Your task to perform on an android device: Open my contact list Image 0: 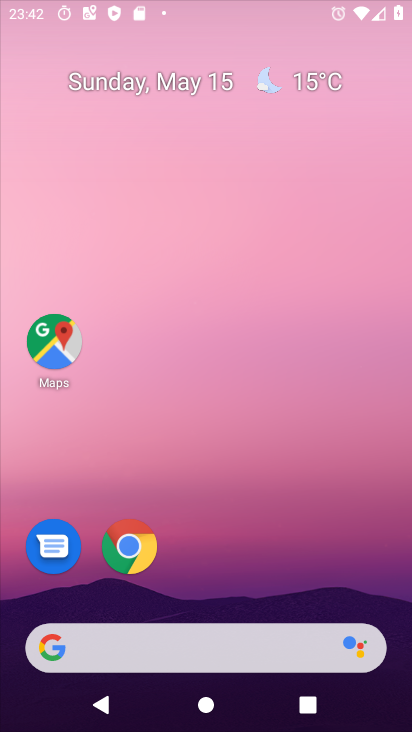
Step 0: drag from (394, 666) to (283, 207)
Your task to perform on an android device: Open my contact list Image 1: 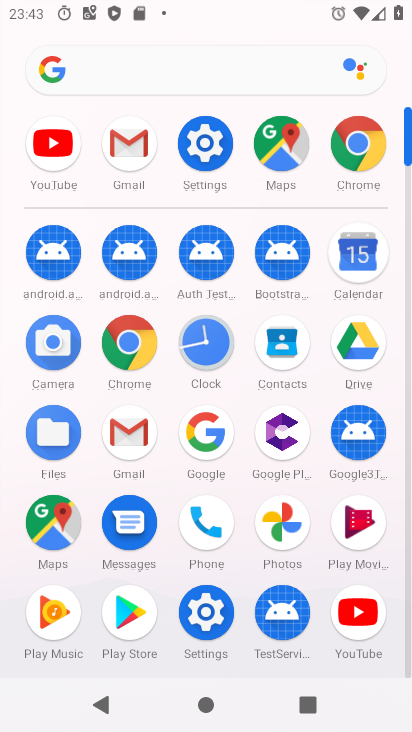
Step 1: click (203, 612)
Your task to perform on an android device: Open my contact list Image 2: 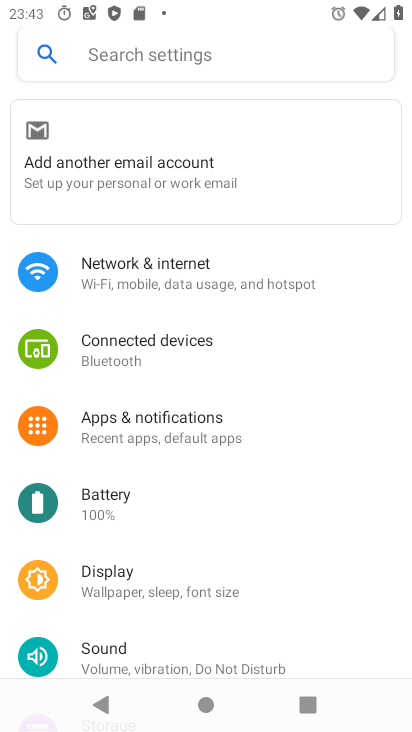
Step 2: drag from (212, 578) to (205, 214)
Your task to perform on an android device: Open my contact list Image 3: 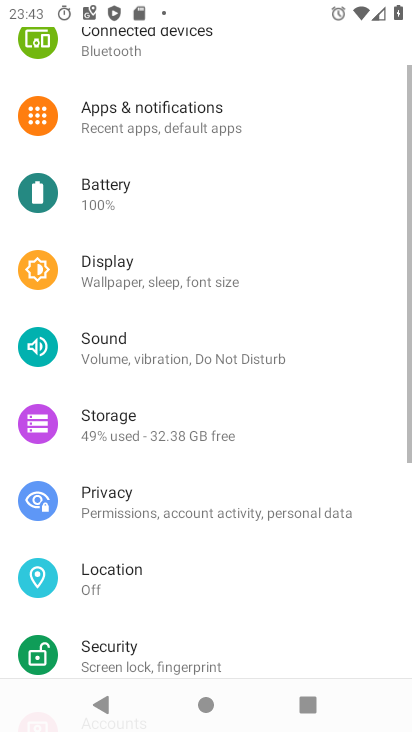
Step 3: drag from (228, 365) to (216, 127)
Your task to perform on an android device: Open my contact list Image 4: 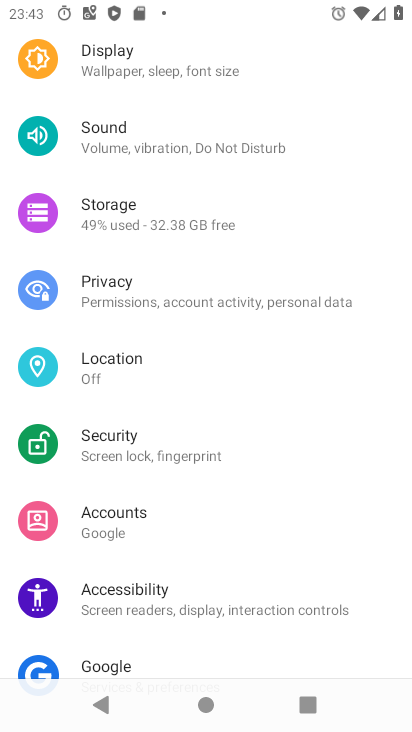
Step 4: drag from (169, 384) to (158, 79)
Your task to perform on an android device: Open my contact list Image 5: 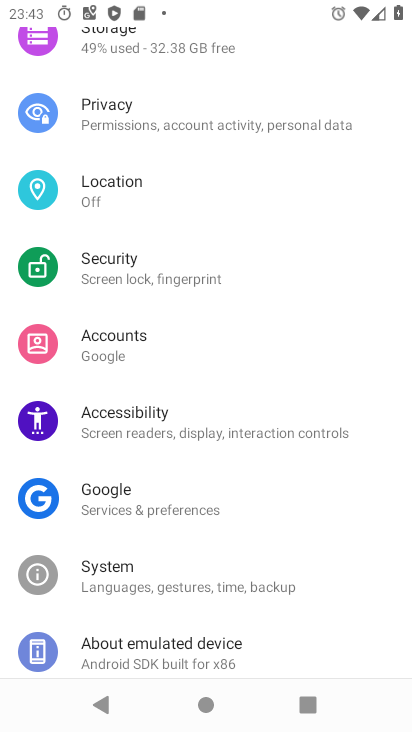
Step 5: drag from (174, 554) to (165, 112)
Your task to perform on an android device: Open my contact list Image 6: 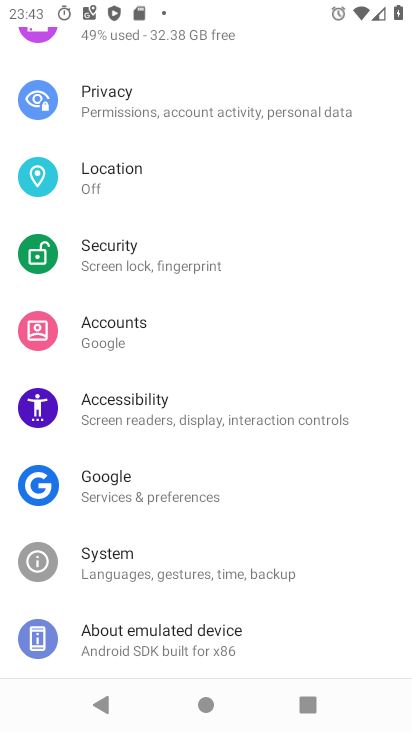
Step 6: drag from (197, 539) to (175, 157)
Your task to perform on an android device: Open my contact list Image 7: 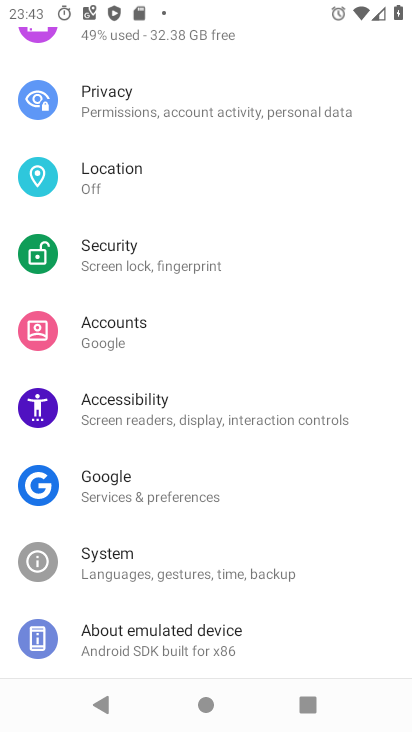
Step 7: drag from (100, 499) to (103, 57)
Your task to perform on an android device: Open my contact list Image 8: 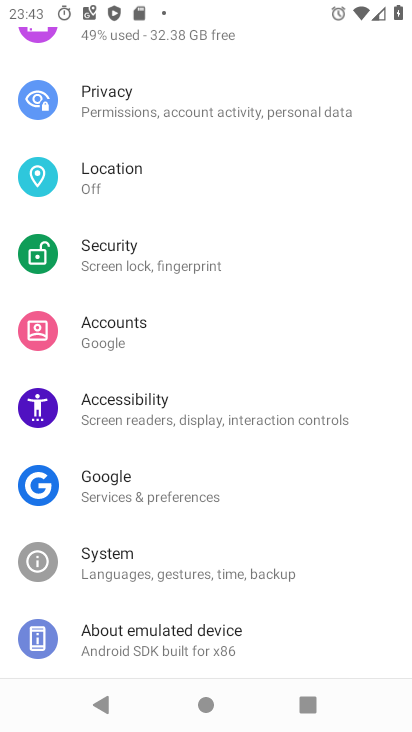
Step 8: drag from (246, 399) to (149, 127)
Your task to perform on an android device: Open my contact list Image 9: 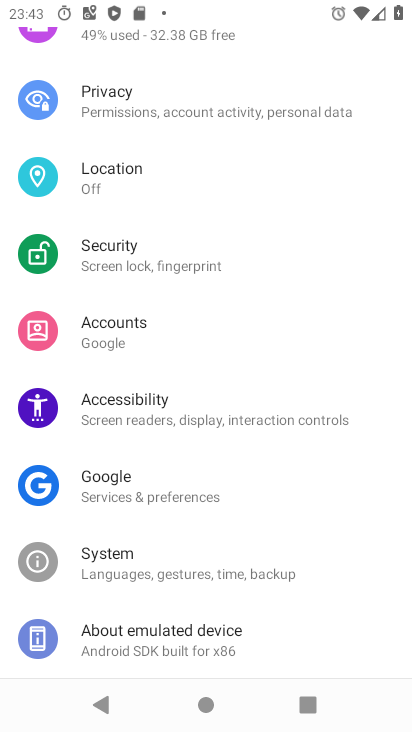
Step 9: drag from (188, 428) to (187, 175)
Your task to perform on an android device: Open my contact list Image 10: 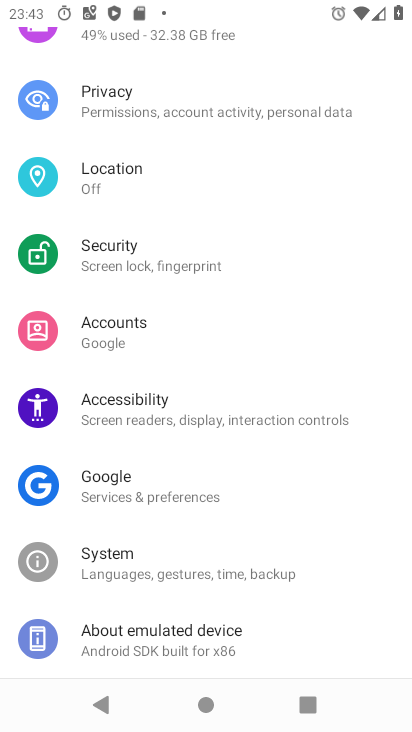
Step 10: drag from (224, 426) to (153, 138)
Your task to perform on an android device: Open my contact list Image 11: 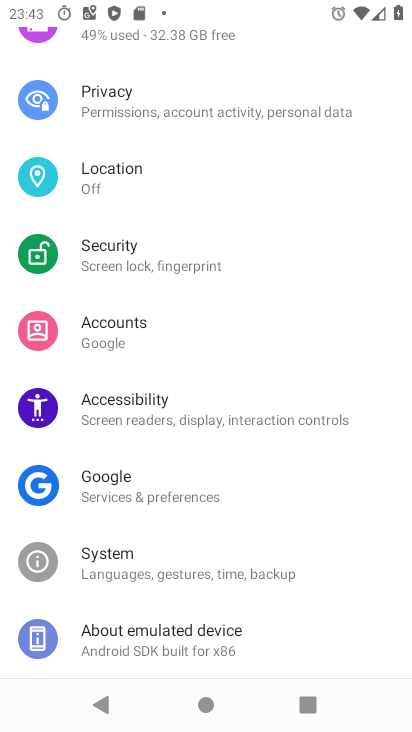
Step 11: drag from (181, 418) to (223, 9)
Your task to perform on an android device: Open my contact list Image 12: 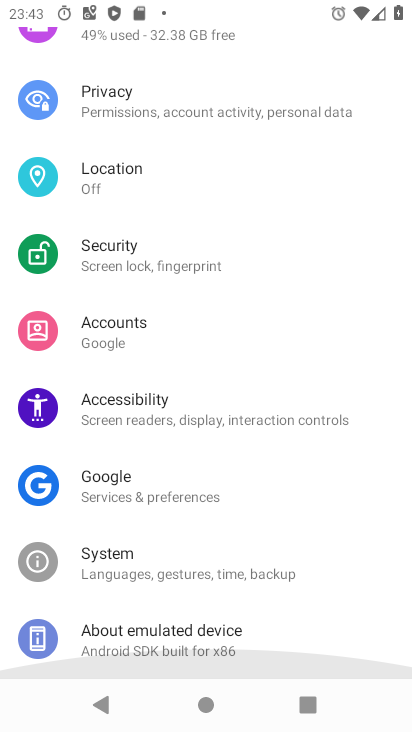
Step 12: drag from (188, 296) to (175, 27)
Your task to perform on an android device: Open my contact list Image 13: 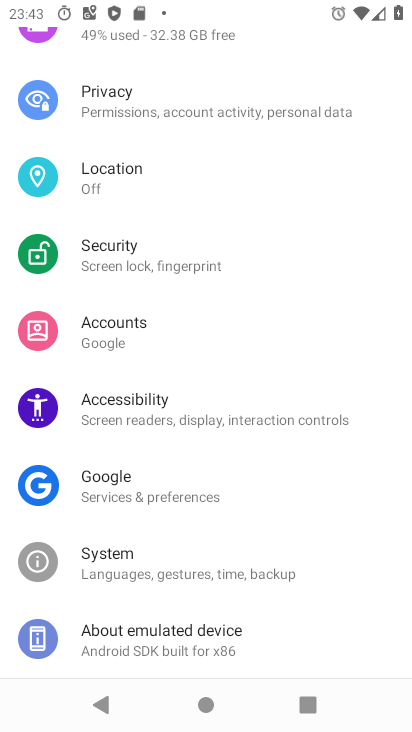
Step 13: drag from (165, 138) to (207, 559)
Your task to perform on an android device: Open my contact list Image 14: 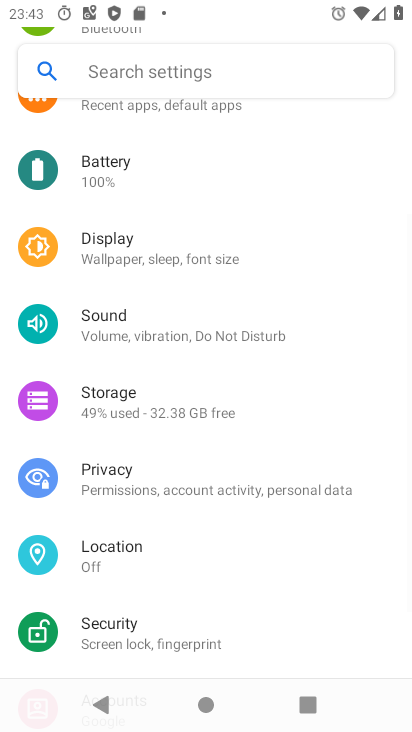
Step 14: drag from (165, 158) to (235, 582)
Your task to perform on an android device: Open my contact list Image 15: 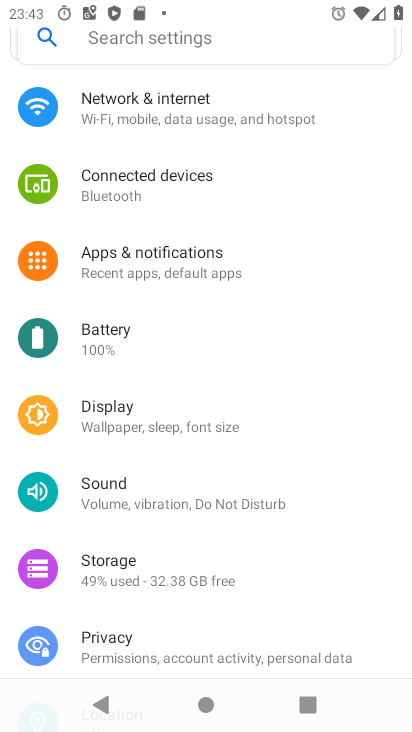
Step 15: drag from (136, 301) to (173, 720)
Your task to perform on an android device: Open my contact list Image 16: 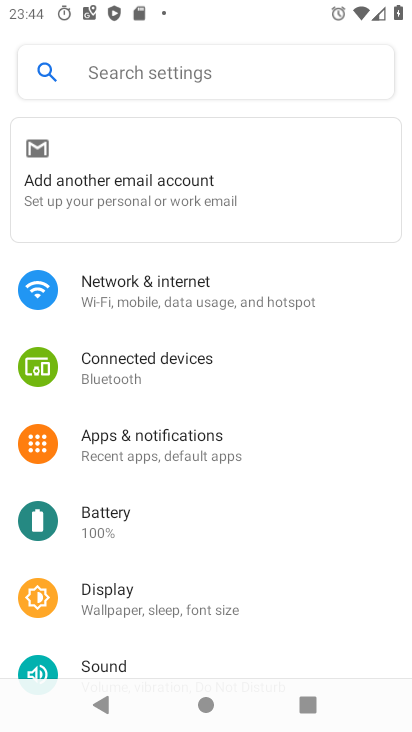
Step 16: click (170, 298)
Your task to perform on an android device: Open my contact list Image 17: 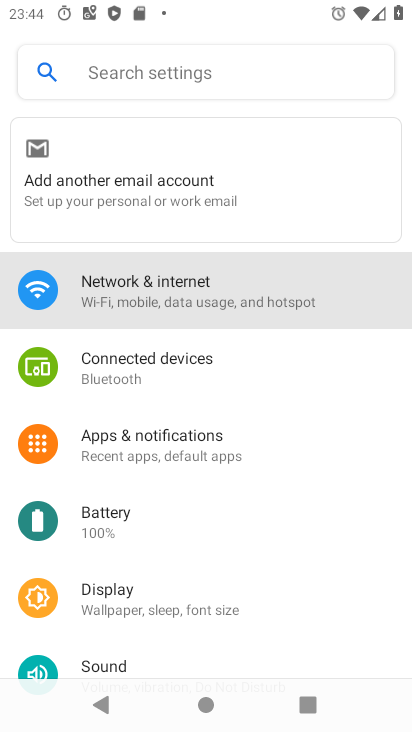
Step 17: click (174, 295)
Your task to perform on an android device: Open my contact list Image 18: 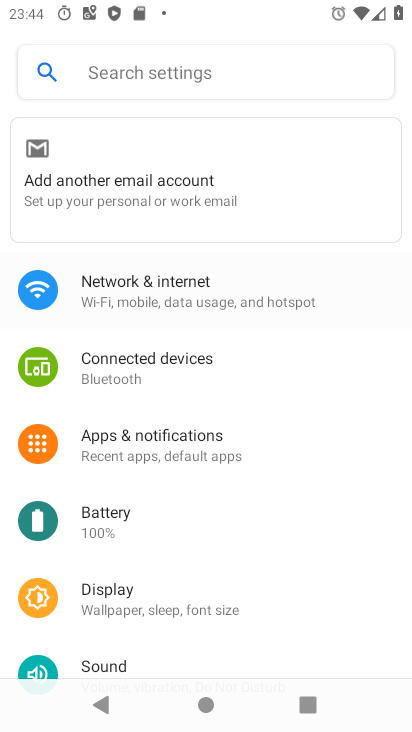
Step 18: click (176, 294)
Your task to perform on an android device: Open my contact list Image 19: 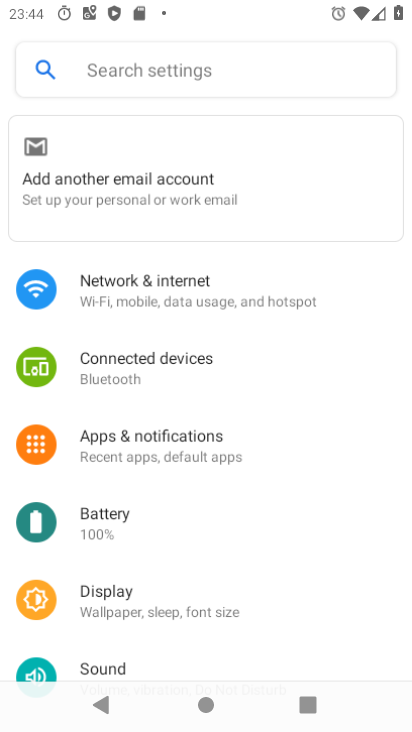
Step 19: click (181, 298)
Your task to perform on an android device: Open my contact list Image 20: 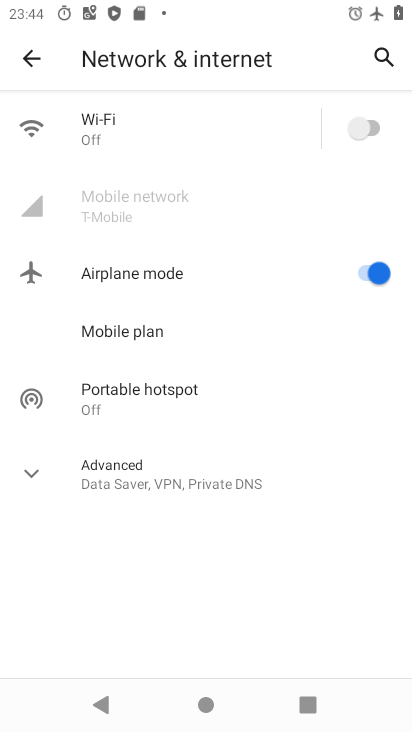
Step 20: click (360, 119)
Your task to perform on an android device: Open my contact list Image 21: 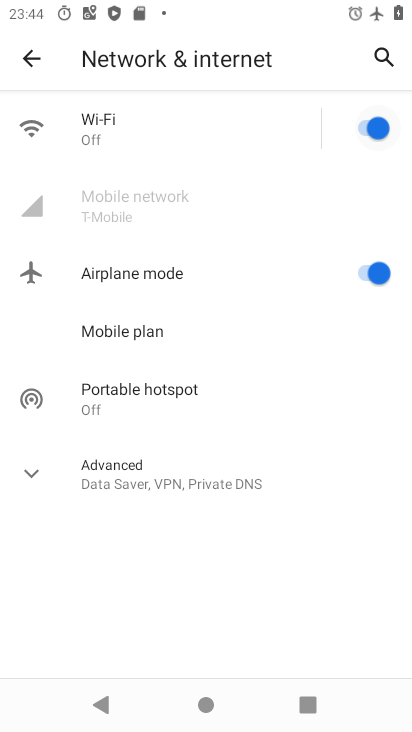
Step 21: click (356, 134)
Your task to perform on an android device: Open my contact list Image 22: 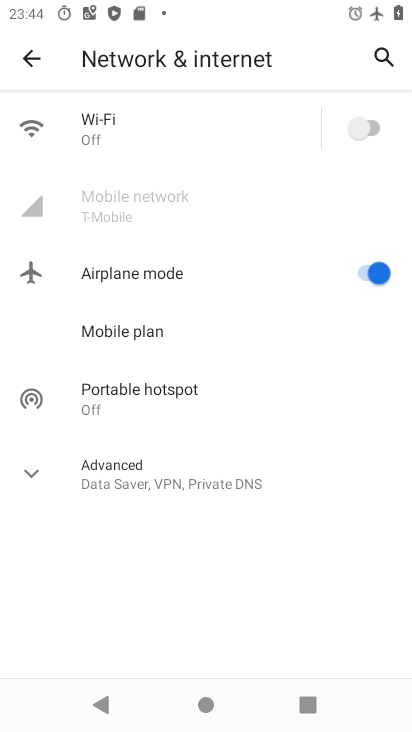
Step 22: click (34, 55)
Your task to perform on an android device: Open my contact list Image 23: 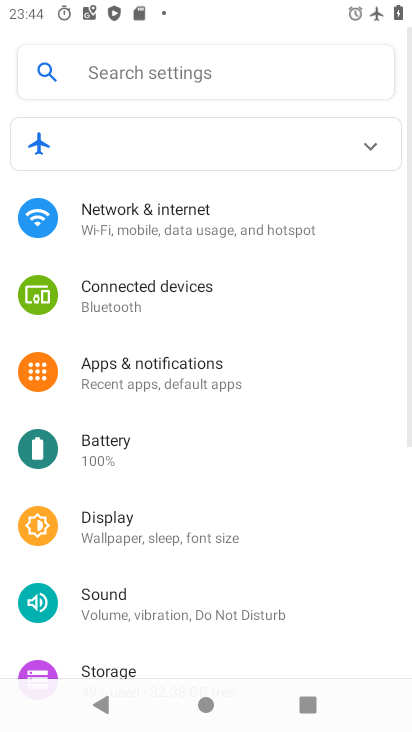
Step 23: click (182, 213)
Your task to perform on an android device: Open my contact list Image 24: 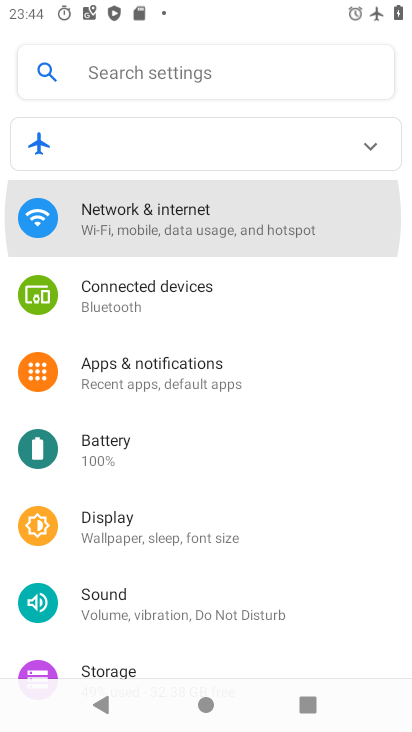
Step 24: click (183, 216)
Your task to perform on an android device: Open my contact list Image 25: 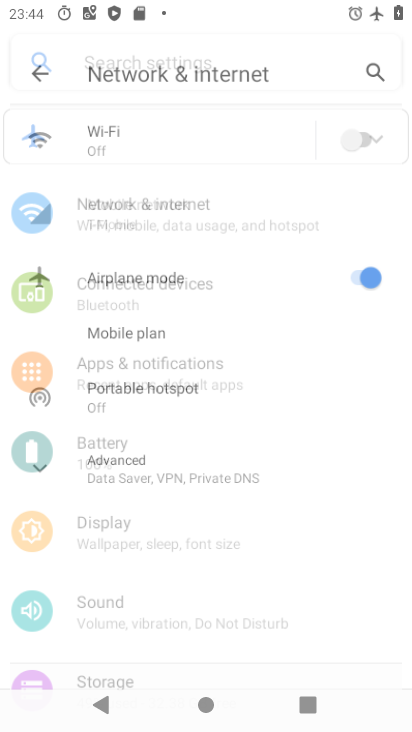
Step 25: click (183, 216)
Your task to perform on an android device: Open my contact list Image 26: 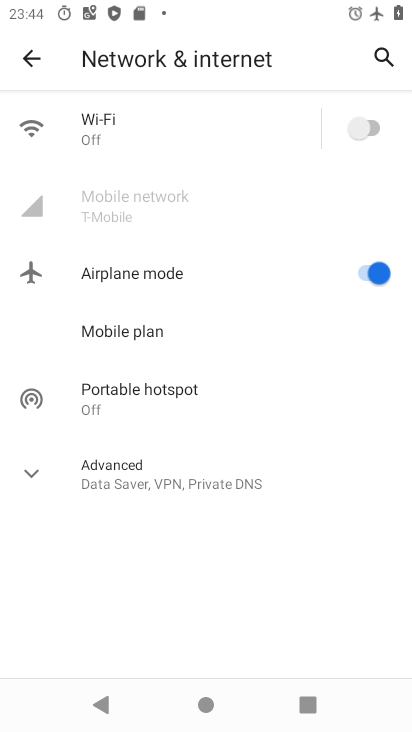
Step 26: click (184, 218)
Your task to perform on an android device: Open my contact list Image 27: 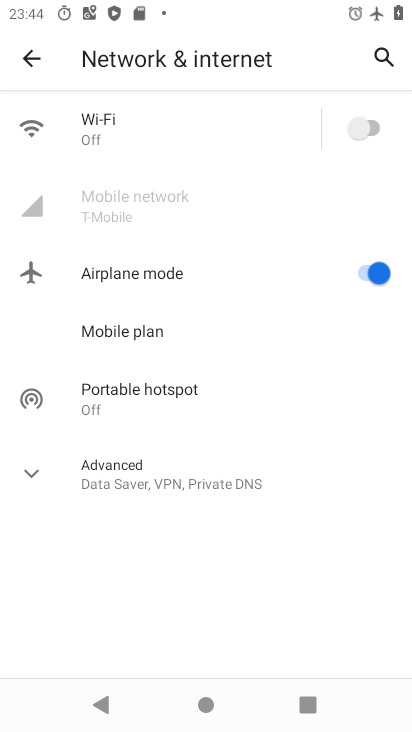
Step 27: click (358, 117)
Your task to perform on an android device: Open my contact list Image 28: 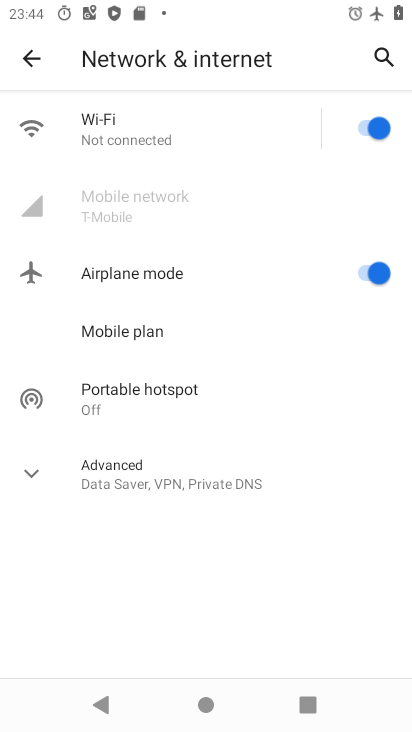
Step 28: click (20, 64)
Your task to perform on an android device: Open my contact list Image 29: 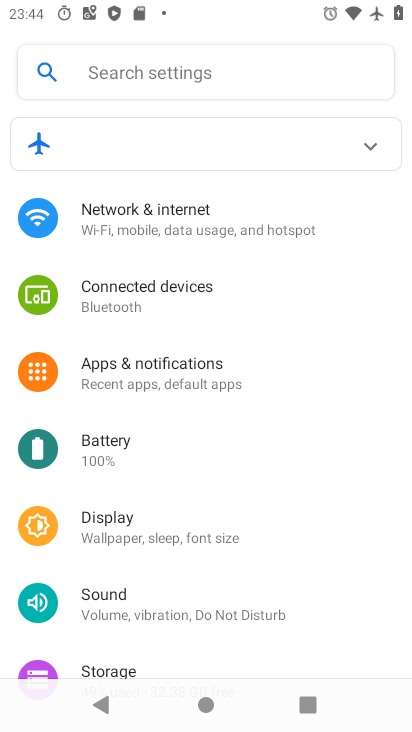
Step 29: drag from (137, 511) to (137, 207)
Your task to perform on an android device: Open my contact list Image 30: 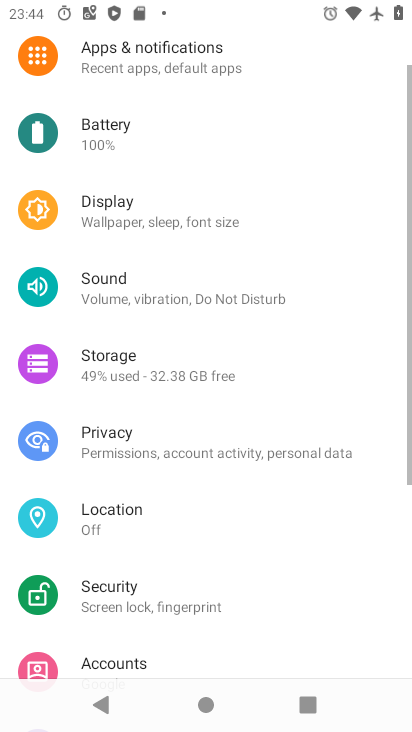
Step 30: drag from (184, 459) to (260, 42)
Your task to perform on an android device: Open my contact list Image 31: 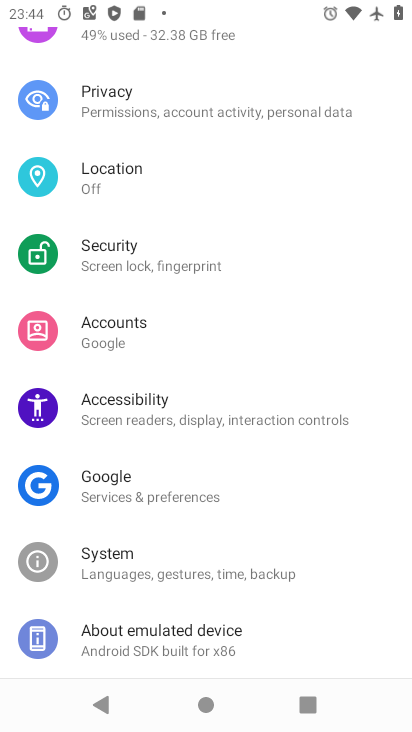
Step 31: press back button
Your task to perform on an android device: Open my contact list Image 32: 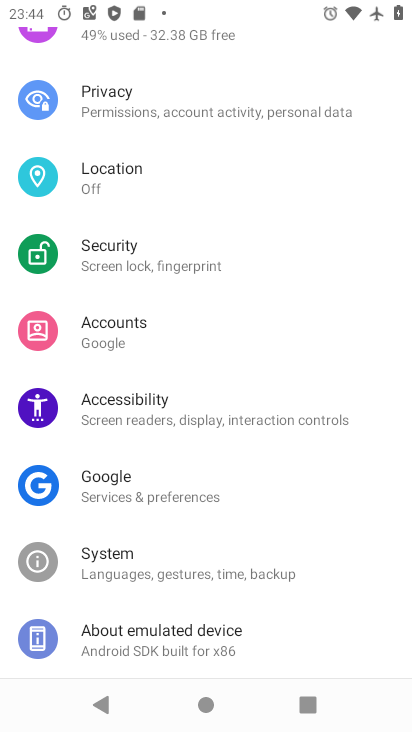
Step 32: press back button
Your task to perform on an android device: Open my contact list Image 33: 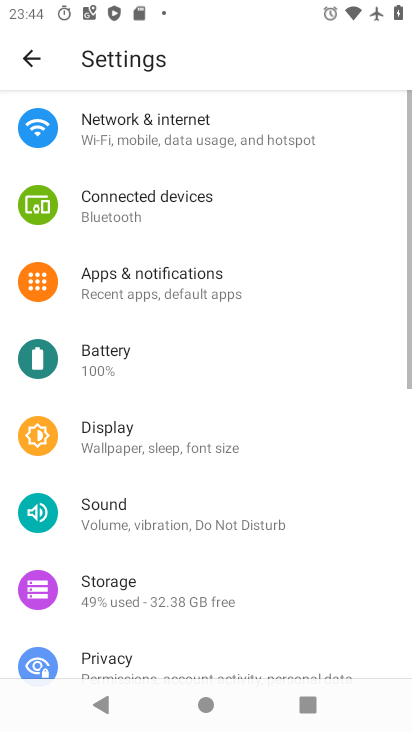
Step 33: press back button
Your task to perform on an android device: Open my contact list Image 34: 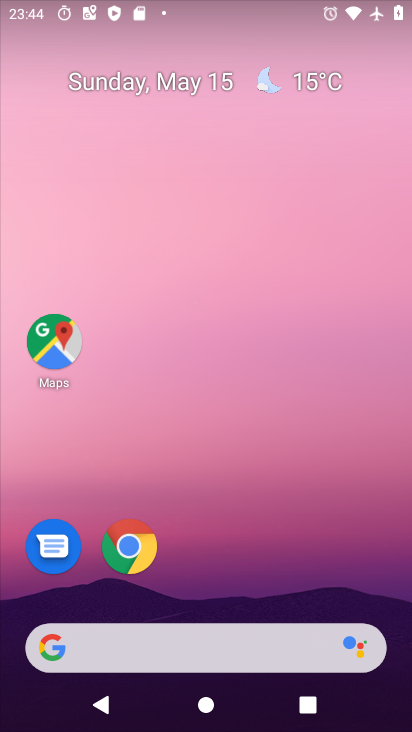
Step 34: drag from (259, 658) to (178, 65)
Your task to perform on an android device: Open my contact list Image 35: 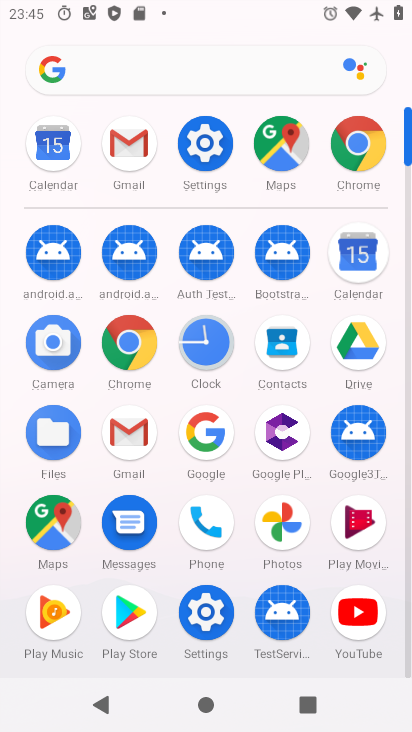
Step 35: click (198, 350)
Your task to perform on an android device: Open my contact list Image 36: 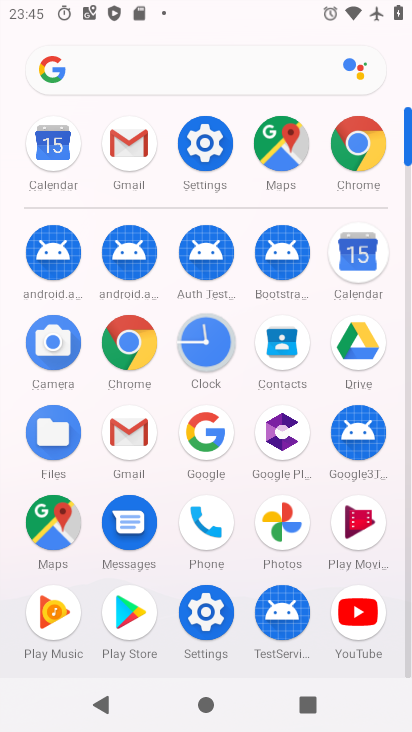
Step 36: click (200, 349)
Your task to perform on an android device: Open my contact list Image 37: 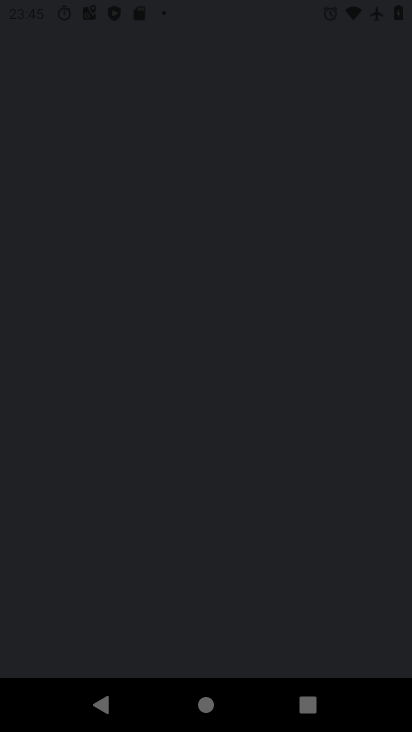
Step 37: click (200, 349)
Your task to perform on an android device: Open my contact list Image 38: 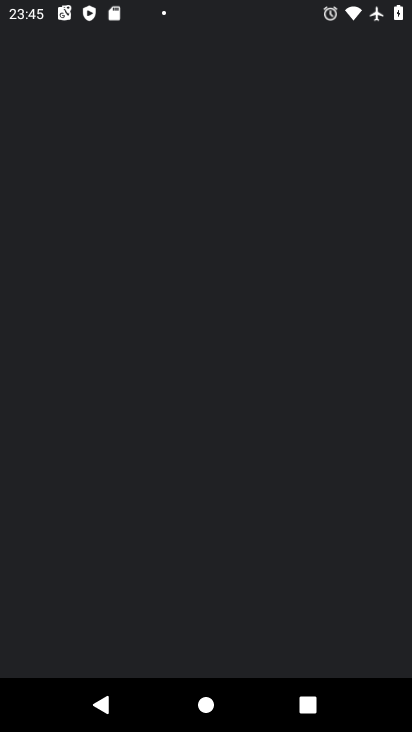
Step 38: click (200, 349)
Your task to perform on an android device: Open my contact list Image 39: 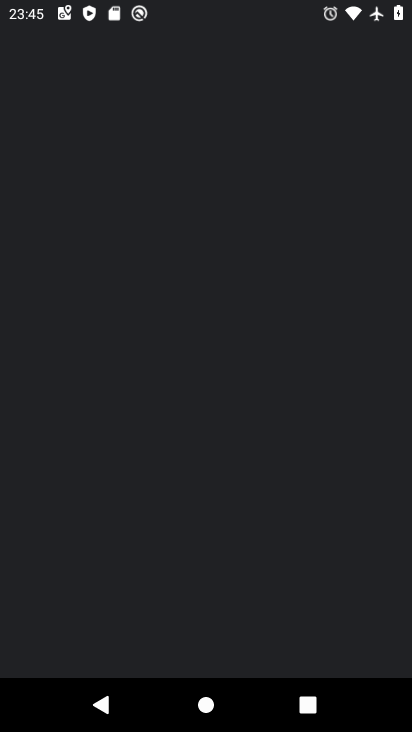
Step 39: click (201, 349)
Your task to perform on an android device: Open my contact list Image 40: 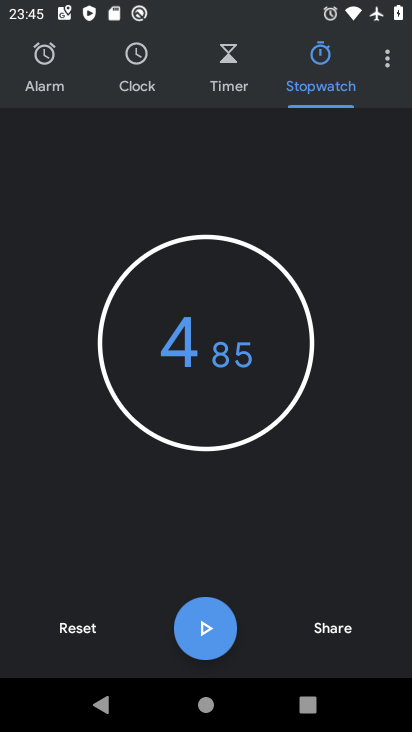
Step 40: press back button
Your task to perform on an android device: Open my contact list Image 41: 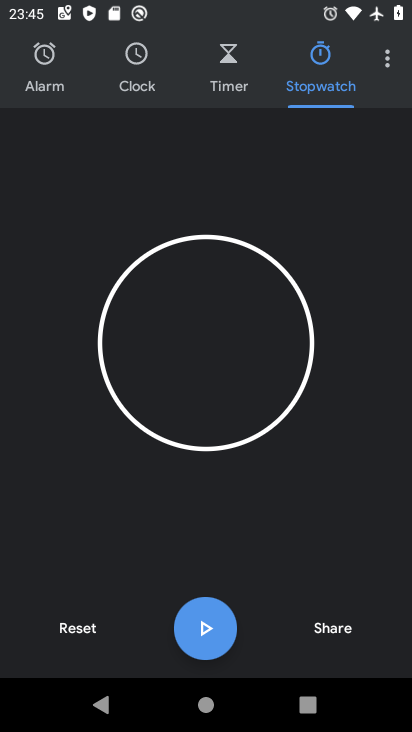
Step 41: press back button
Your task to perform on an android device: Open my contact list Image 42: 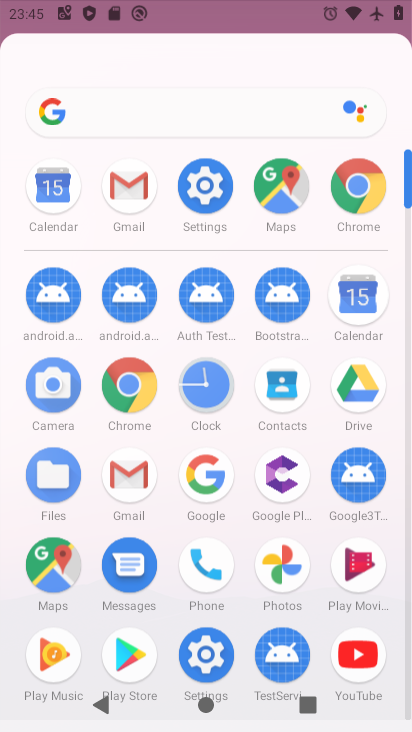
Step 42: press back button
Your task to perform on an android device: Open my contact list Image 43: 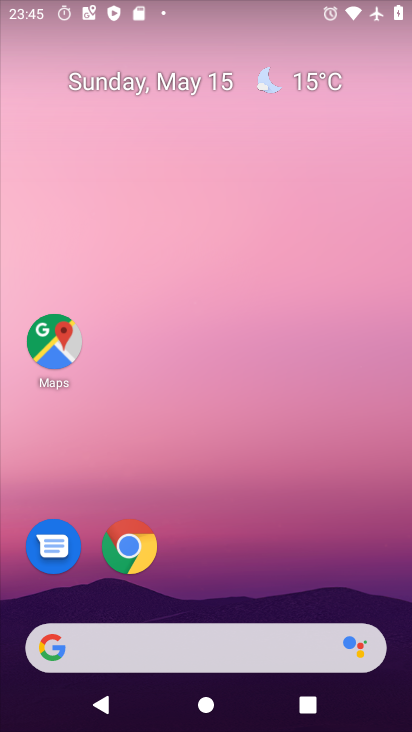
Step 43: press back button
Your task to perform on an android device: Open my contact list Image 44: 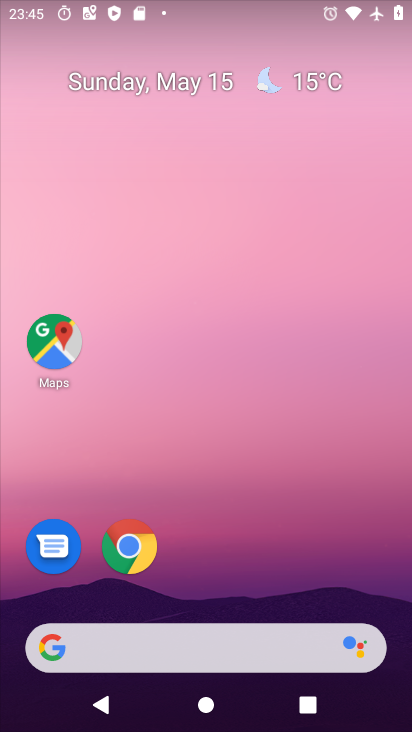
Step 44: drag from (224, 621) to (107, 14)
Your task to perform on an android device: Open my contact list Image 45: 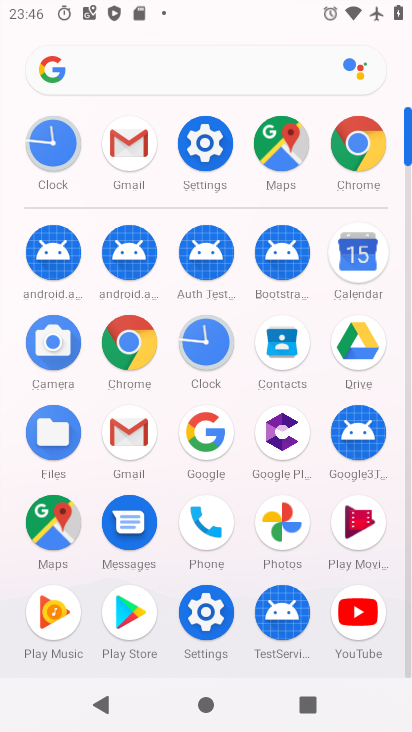
Step 45: click (274, 354)
Your task to perform on an android device: Open my contact list Image 46: 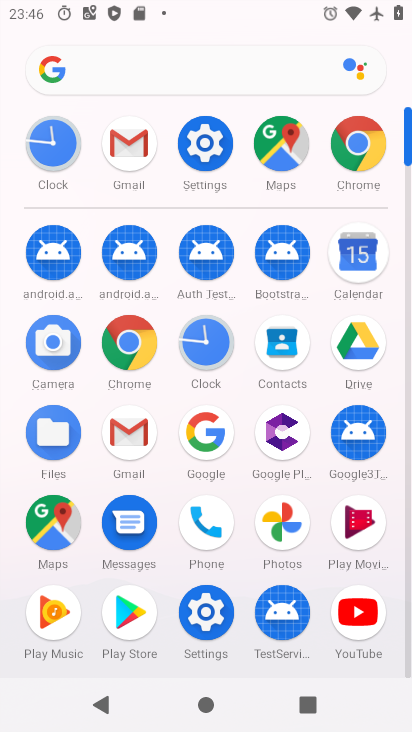
Step 46: click (274, 354)
Your task to perform on an android device: Open my contact list Image 47: 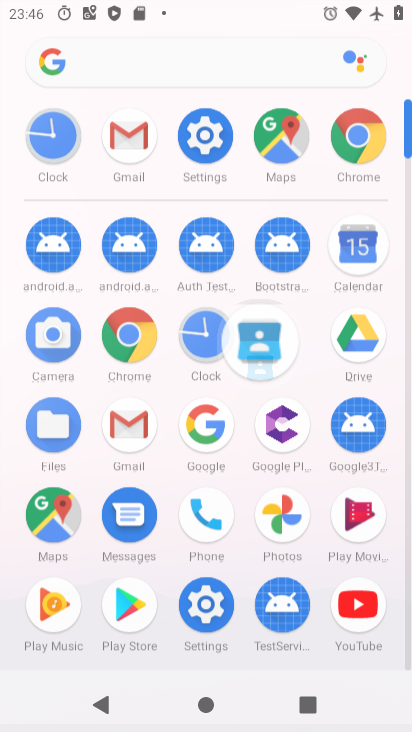
Step 47: click (274, 354)
Your task to perform on an android device: Open my contact list Image 48: 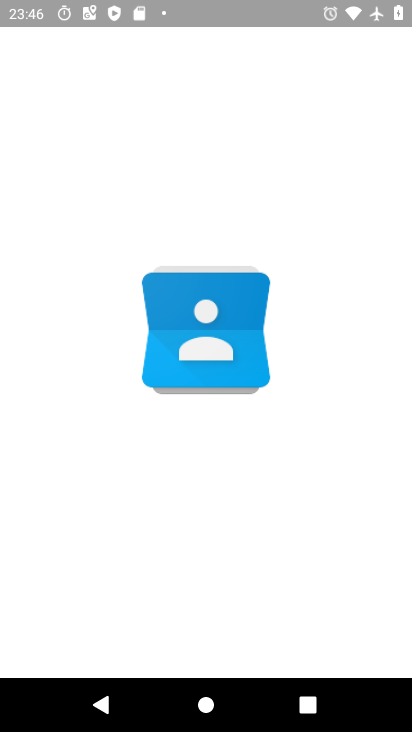
Step 48: click (274, 353)
Your task to perform on an android device: Open my contact list Image 49: 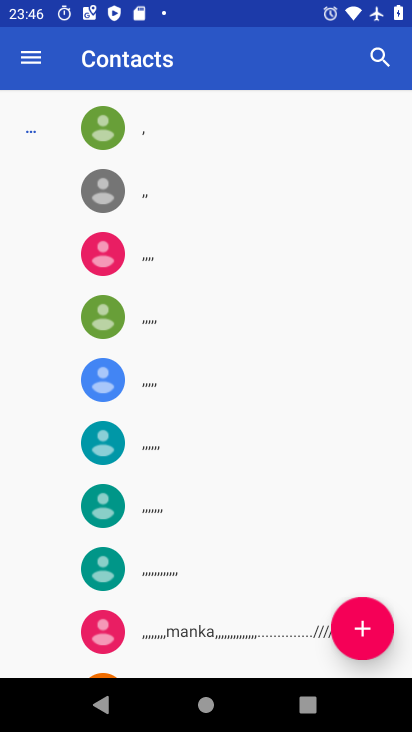
Step 49: task complete